Your task to perform on an android device: Search for pizza restaurants on Maps Image 0: 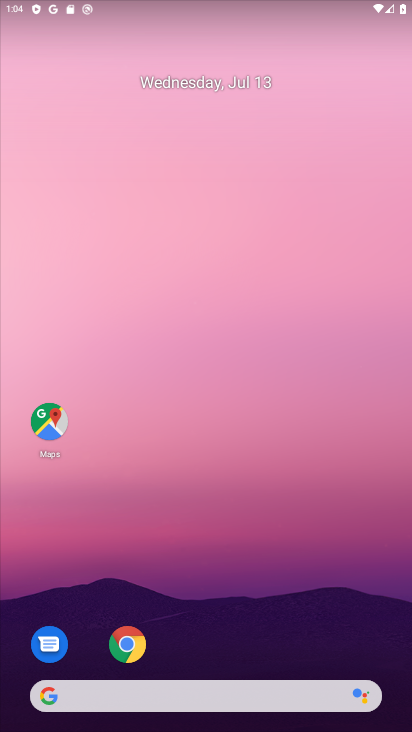
Step 0: click (47, 423)
Your task to perform on an android device: Search for pizza restaurants on Maps Image 1: 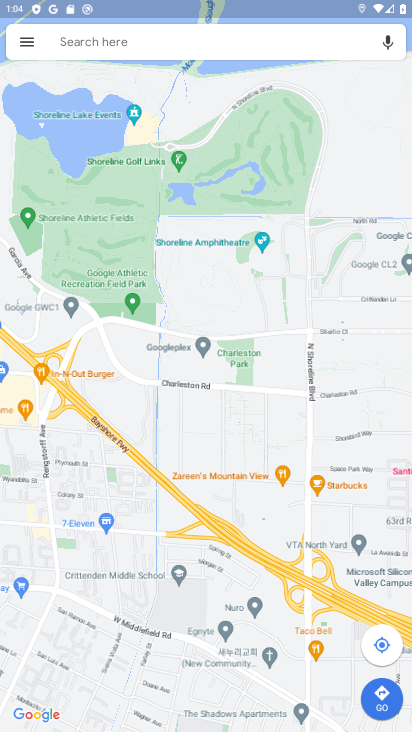
Step 1: click (158, 37)
Your task to perform on an android device: Search for pizza restaurants on Maps Image 2: 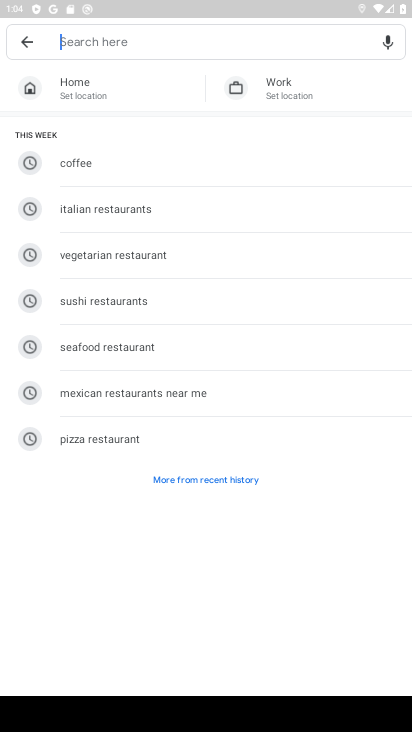
Step 2: click (264, 445)
Your task to perform on an android device: Search for pizza restaurants on Maps Image 3: 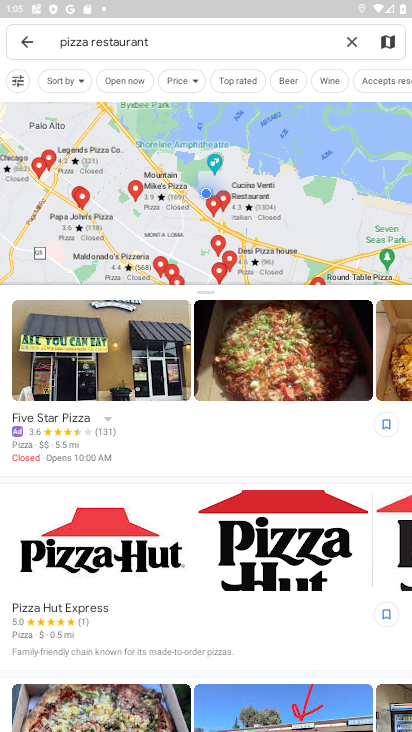
Step 3: task complete